Your task to perform on an android device: turn off data saver in the chrome app Image 0: 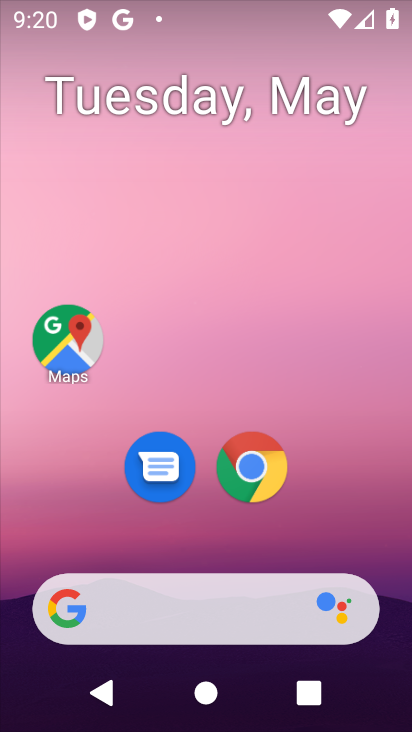
Step 0: drag from (341, 491) to (247, 30)
Your task to perform on an android device: turn off data saver in the chrome app Image 1: 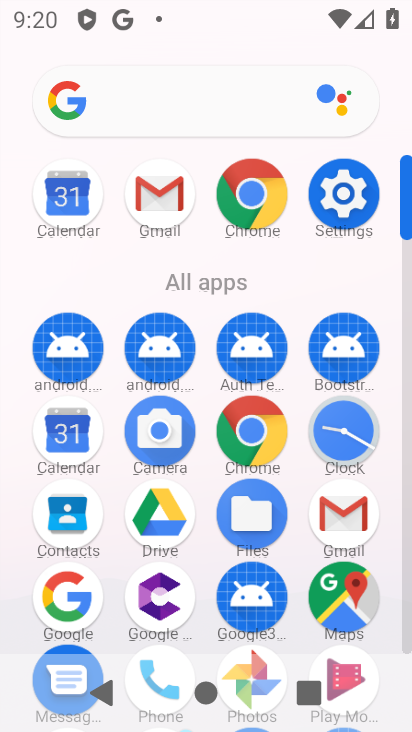
Step 1: drag from (14, 621) to (34, 207)
Your task to perform on an android device: turn off data saver in the chrome app Image 2: 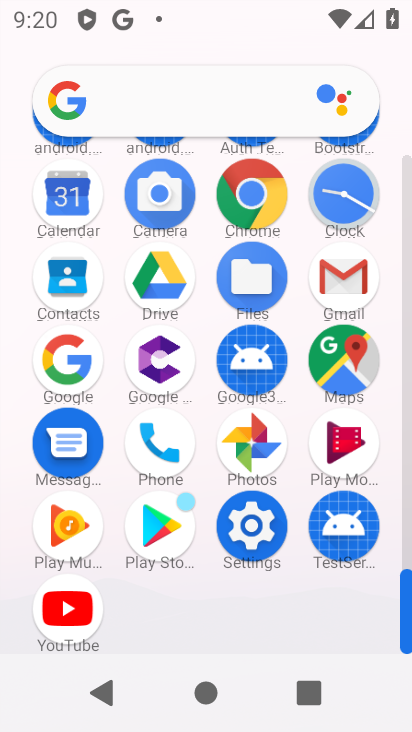
Step 2: click (247, 192)
Your task to perform on an android device: turn off data saver in the chrome app Image 3: 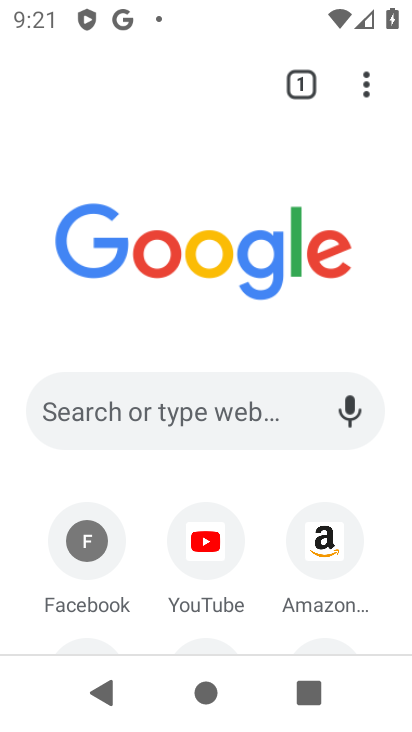
Step 3: drag from (367, 83) to (104, 521)
Your task to perform on an android device: turn off data saver in the chrome app Image 4: 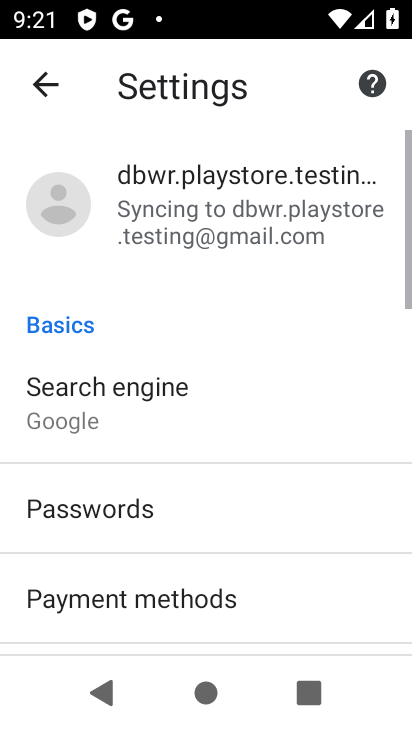
Step 4: drag from (247, 521) to (243, 163)
Your task to perform on an android device: turn off data saver in the chrome app Image 5: 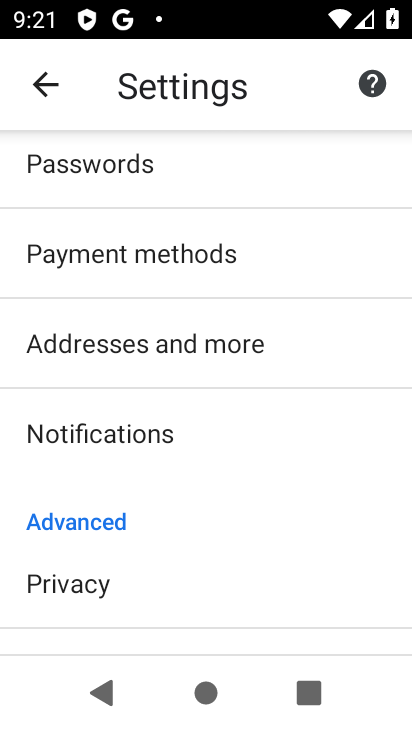
Step 5: drag from (270, 542) to (280, 138)
Your task to perform on an android device: turn off data saver in the chrome app Image 6: 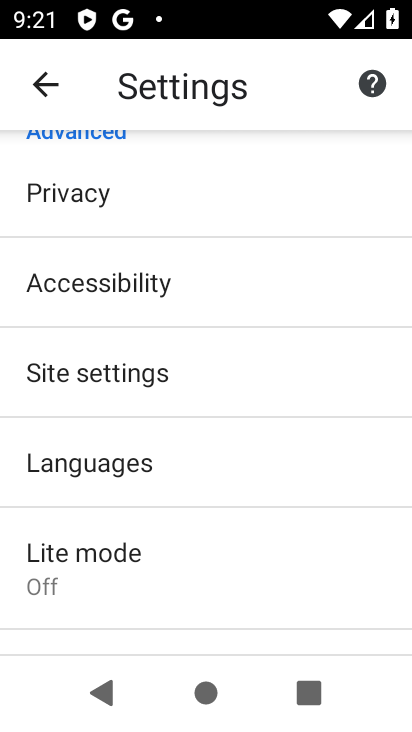
Step 6: drag from (256, 607) to (256, 236)
Your task to perform on an android device: turn off data saver in the chrome app Image 7: 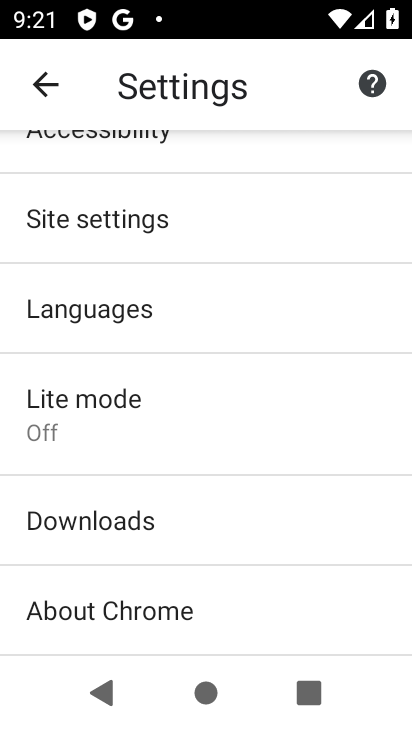
Step 7: click (179, 414)
Your task to perform on an android device: turn off data saver in the chrome app Image 8: 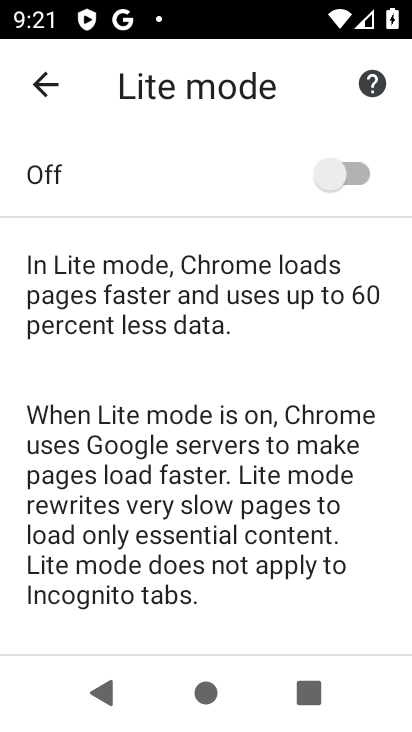
Step 8: task complete